Your task to perform on an android device: Go to calendar. Show me events next week Image 0: 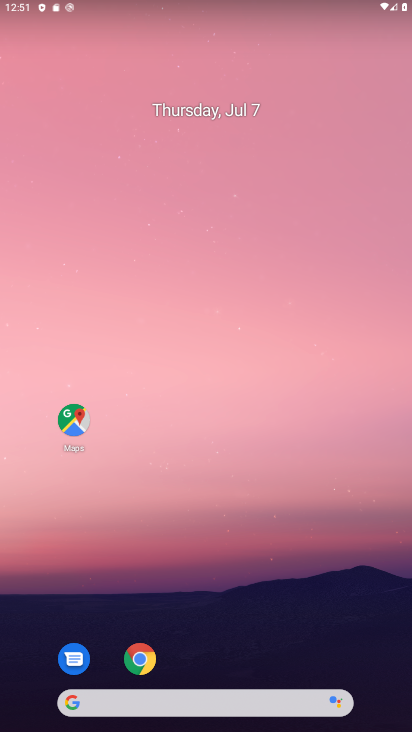
Step 0: drag from (260, 640) to (229, 148)
Your task to perform on an android device: Go to calendar. Show me events next week Image 1: 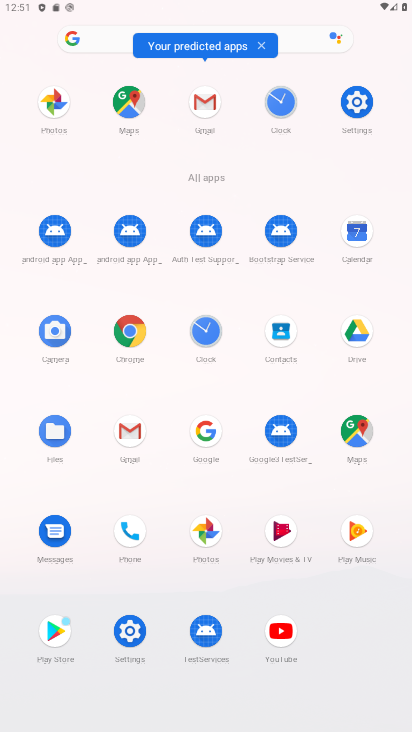
Step 1: click (363, 235)
Your task to perform on an android device: Go to calendar. Show me events next week Image 2: 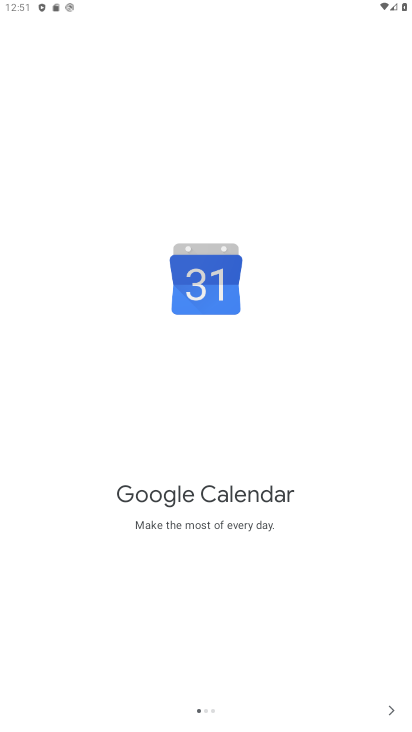
Step 2: click (391, 716)
Your task to perform on an android device: Go to calendar. Show me events next week Image 3: 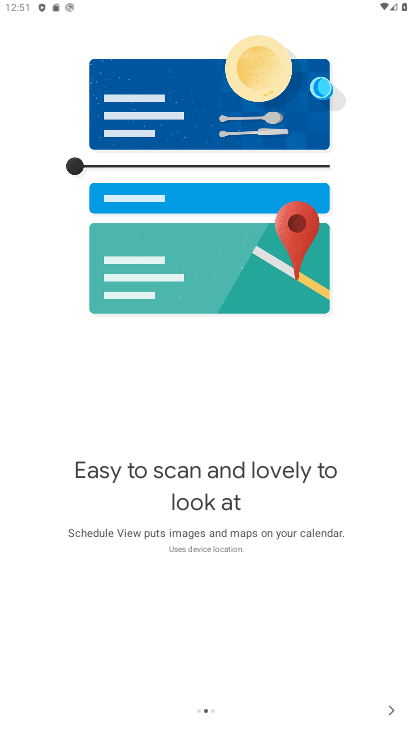
Step 3: click (389, 710)
Your task to perform on an android device: Go to calendar. Show me events next week Image 4: 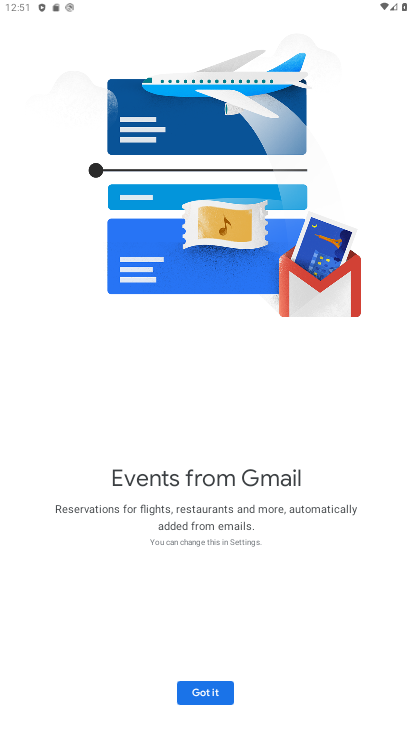
Step 4: click (200, 696)
Your task to perform on an android device: Go to calendar. Show me events next week Image 5: 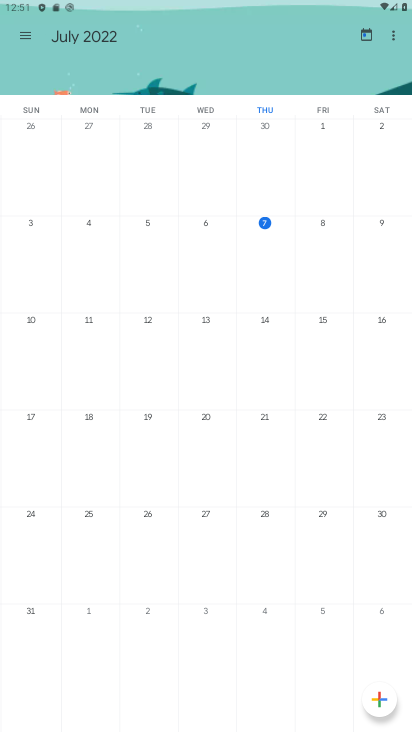
Step 5: click (24, 34)
Your task to perform on an android device: Go to calendar. Show me events next week Image 6: 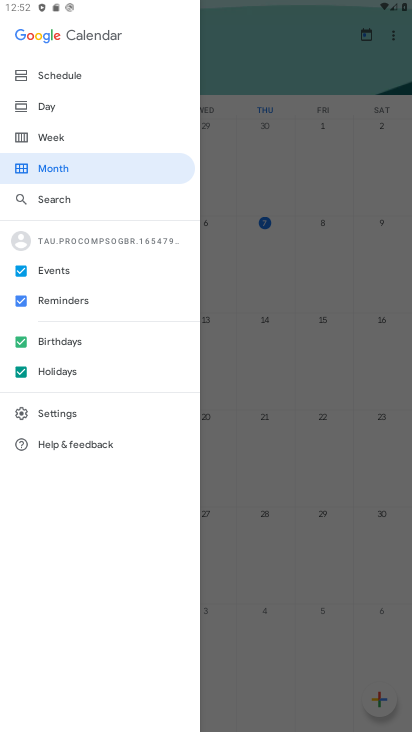
Step 6: click (13, 373)
Your task to perform on an android device: Go to calendar. Show me events next week Image 7: 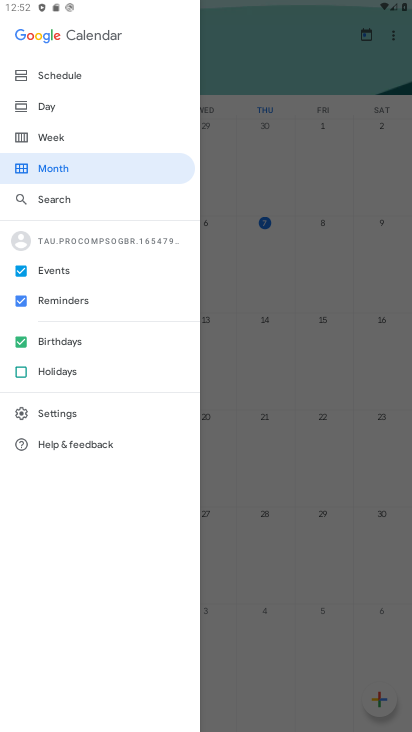
Step 7: click (20, 337)
Your task to perform on an android device: Go to calendar. Show me events next week Image 8: 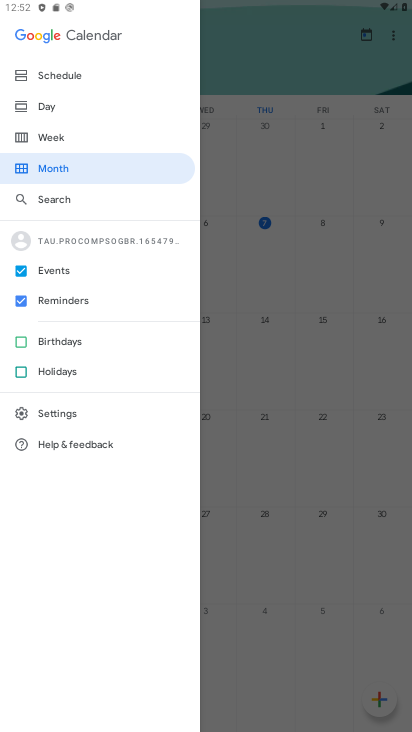
Step 8: click (18, 299)
Your task to perform on an android device: Go to calendar. Show me events next week Image 9: 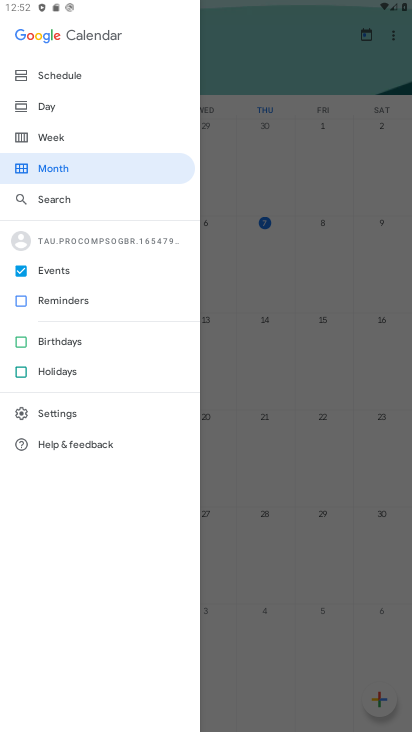
Step 9: click (69, 137)
Your task to perform on an android device: Go to calendar. Show me events next week Image 10: 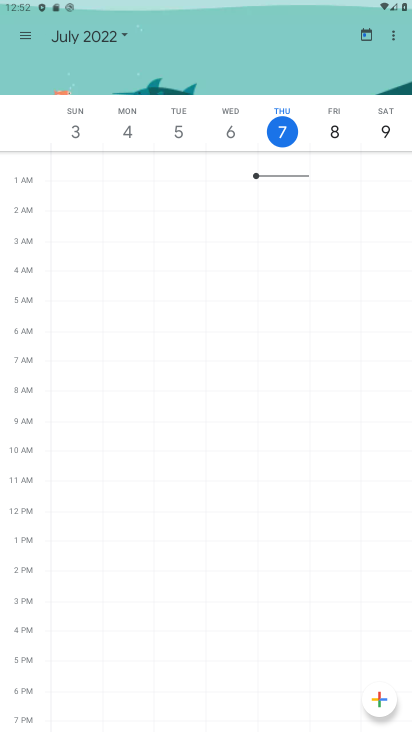
Step 10: task complete